Your task to perform on an android device: change the clock display to analog Image 0: 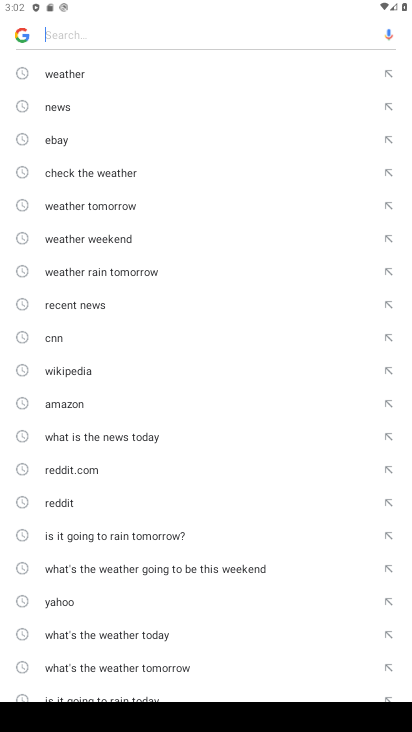
Step 0: press home button
Your task to perform on an android device: change the clock display to analog Image 1: 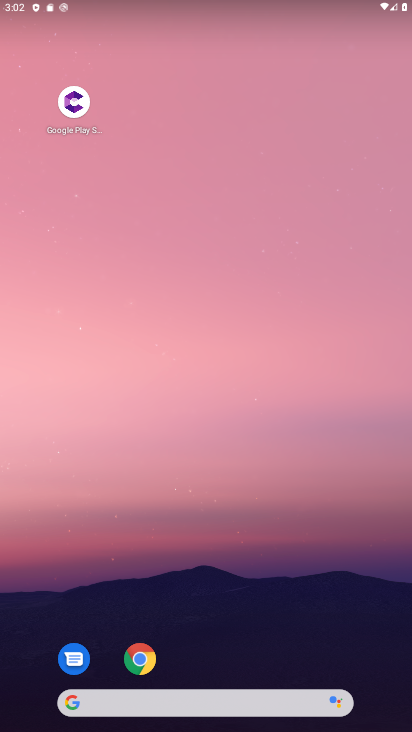
Step 1: drag from (231, 584) to (229, 11)
Your task to perform on an android device: change the clock display to analog Image 2: 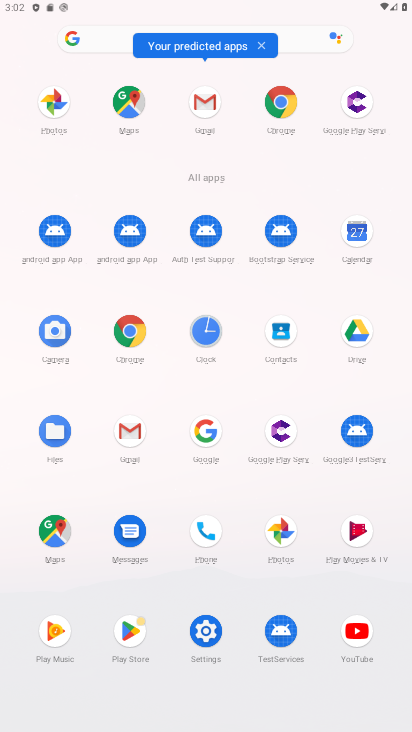
Step 2: click (205, 332)
Your task to perform on an android device: change the clock display to analog Image 3: 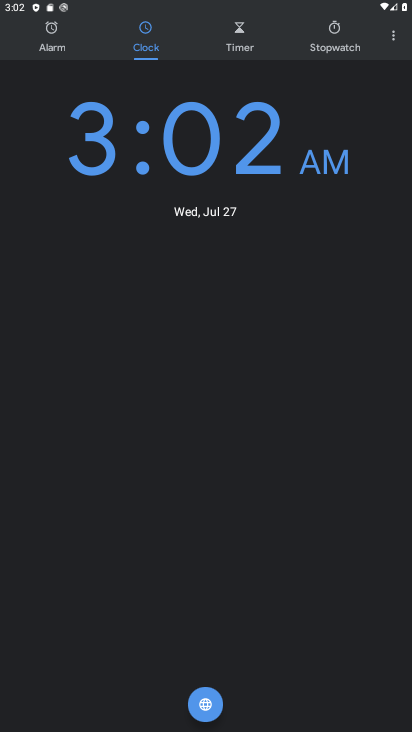
Step 3: click (401, 41)
Your task to perform on an android device: change the clock display to analog Image 4: 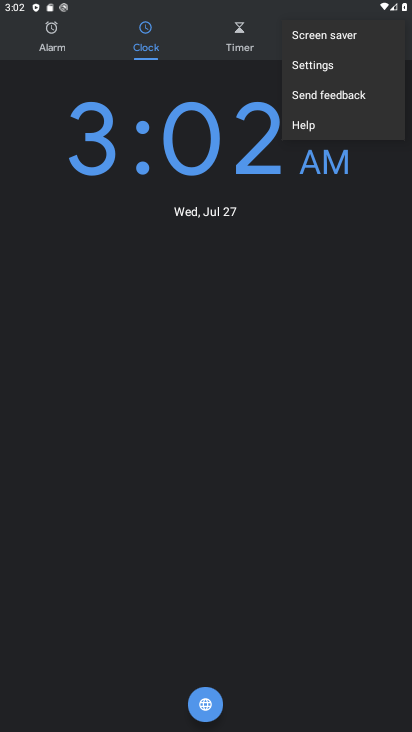
Step 4: click (318, 70)
Your task to perform on an android device: change the clock display to analog Image 5: 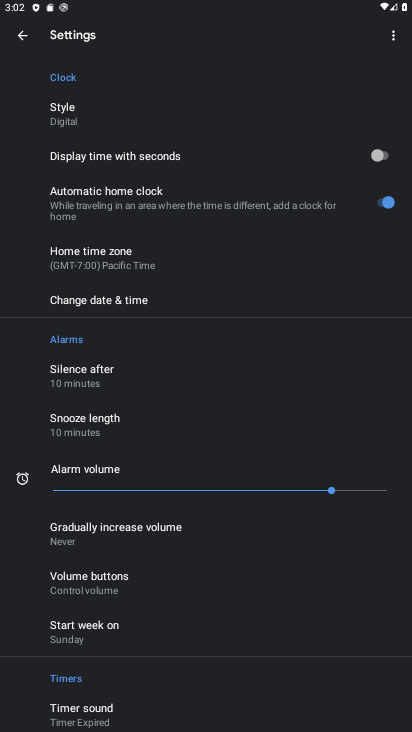
Step 5: click (71, 122)
Your task to perform on an android device: change the clock display to analog Image 6: 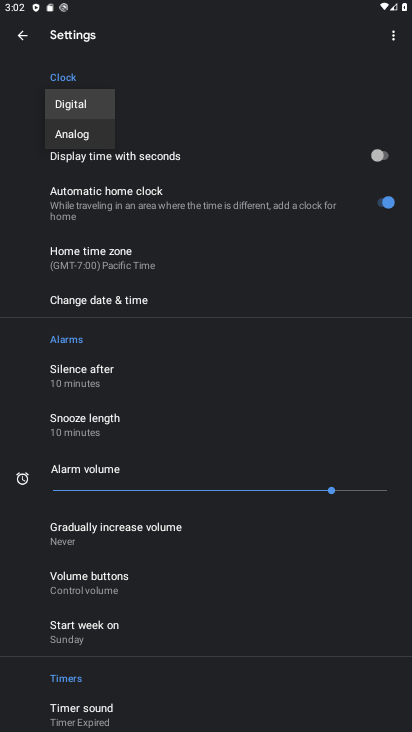
Step 6: click (82, 134)
Your task to perform on an android device: change the clock display to analog Image 7: 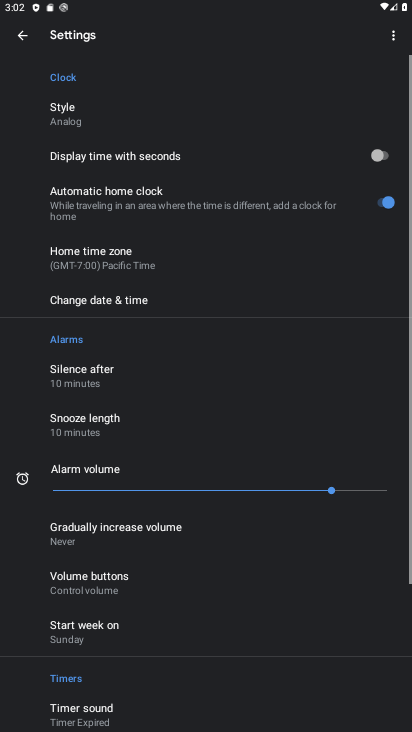
Step 7: task complete